Your task to perform on an android device: Open Reddit.com Image 0: 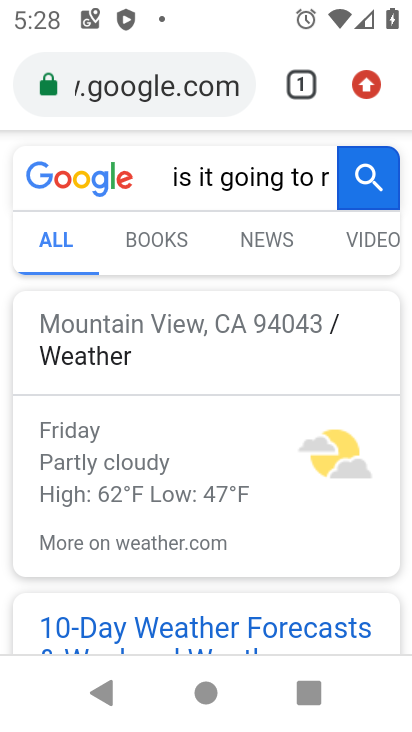
Step 0: press home button
Your task to perform on an android device: Open Reddit.com Image 1: 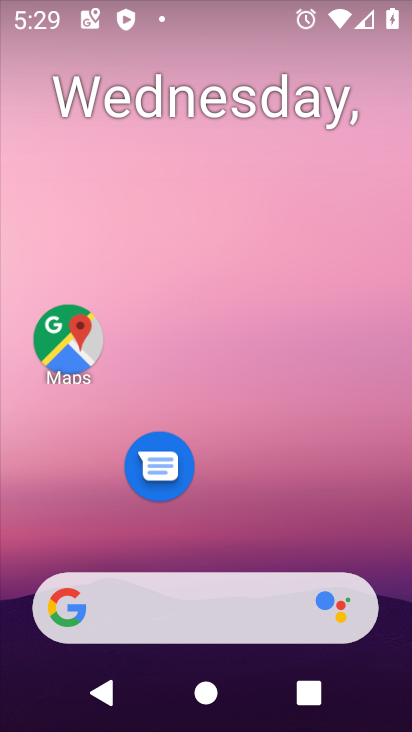
Step 1: drag from (301, 523) to (309, 78)
Your task to perform on an android device: Open Reddit.com Image 2: 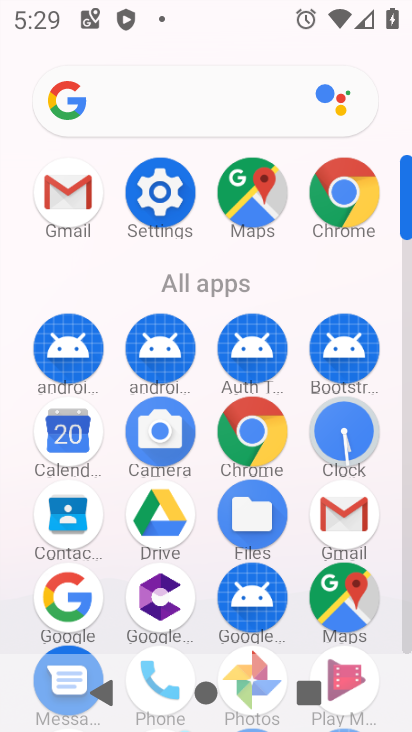
Step 2: click (267, 425)
Your task to perform on an android device: Open Reddit.com Image 3: 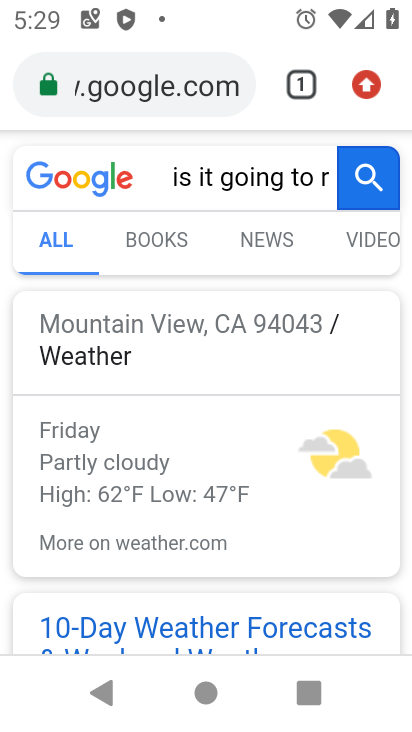
Step 3: click (227, 77)
Your task to perform on an android device: Open Reddit.com Image 4: 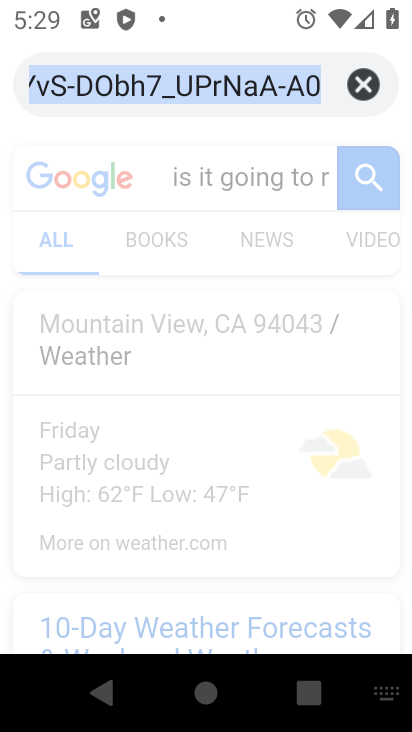
Step 4: click (373, 78)
Your task to perform on an android device: Open Reddit.com Image 5: 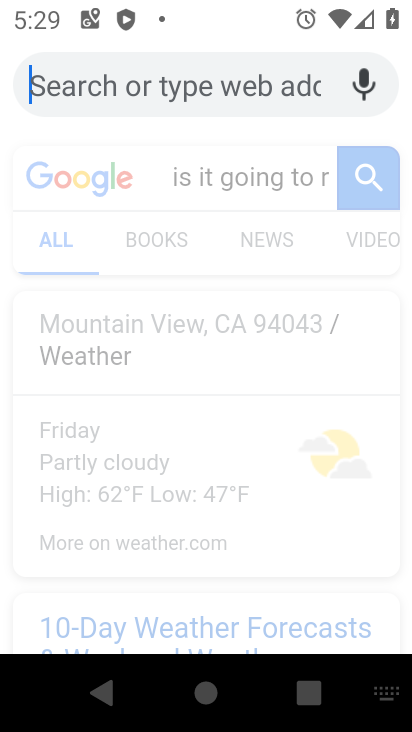
Step 5: type " Reddit.com"
Your task to perform on an android device: Open Reddit.com Image 6: 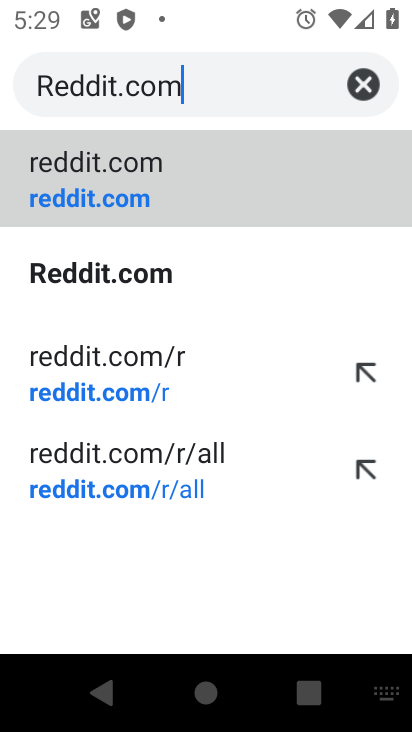
Step 6: click (98, 204)
Your task to perform on an android device: Open Reddit.com Image 7: 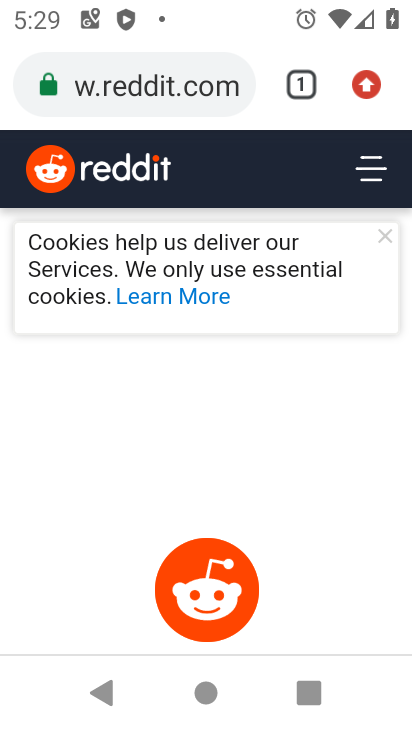
Step 7: task complete